Your task to perform on an android device: Search for pizza restaurants on Maps Image 0: 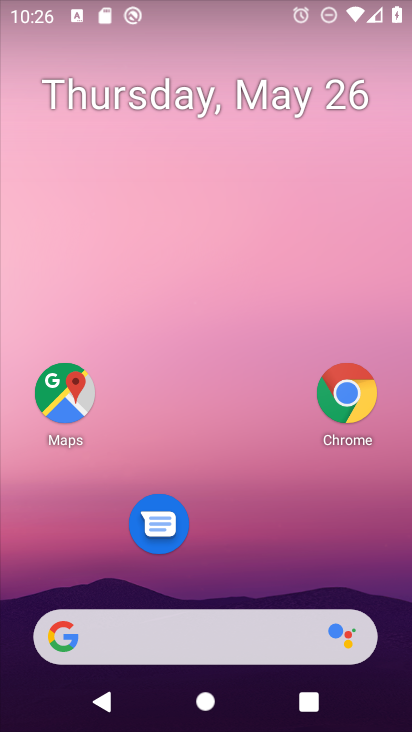
Step 0: click (63, 395)
Your task to perform on an android device: Search for pizza restaurants on Maps Image 1: 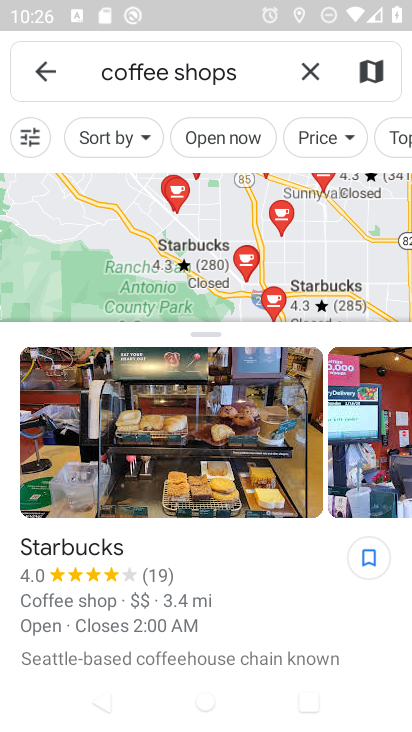
Step 1: click (306, 52)
Your task to perform on an android device: Search for pizza restaurants on Maps Image 2: 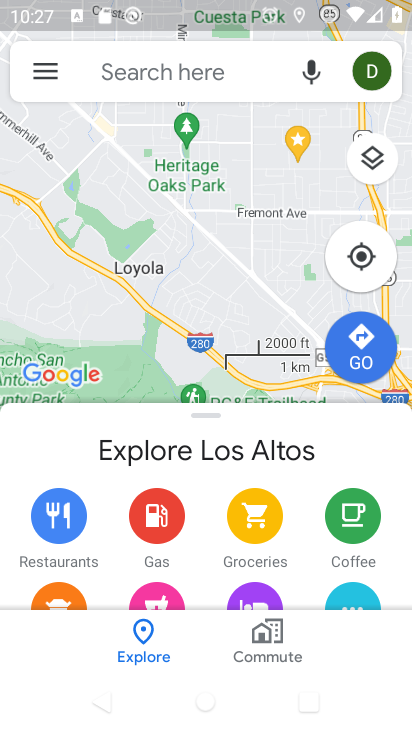
Step 2: click (220, 63)
Your task to perform on an android device: Search for pizza restaurants on Maps Image 3: 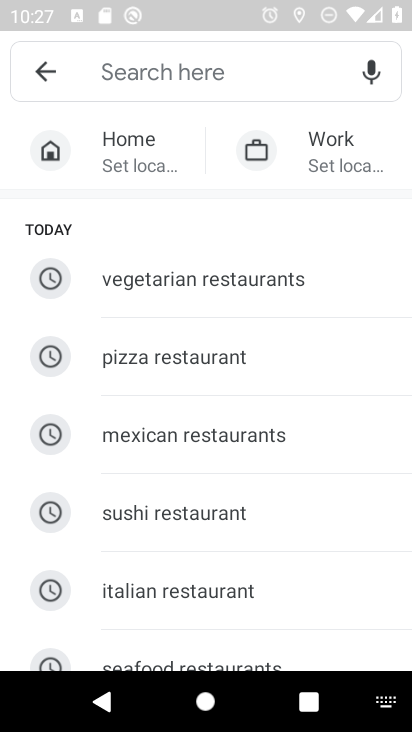
Step 3: click (181, 350)
Your task to perform on an android device: Search for pizza restaurants on Maps Image 4: 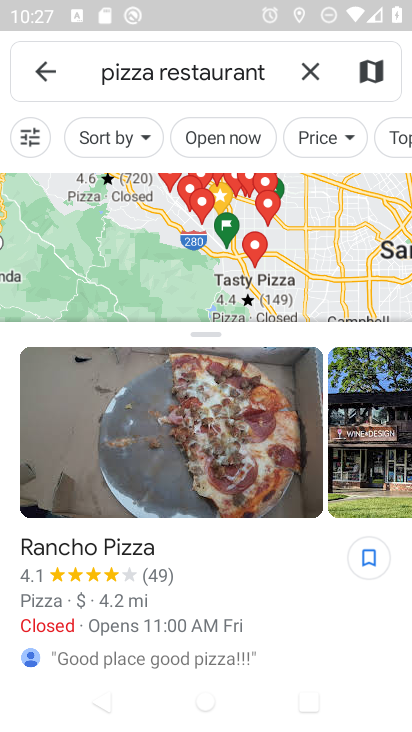
Step 4: task complete